Your task to perform on an android device: Open maps Image 0: 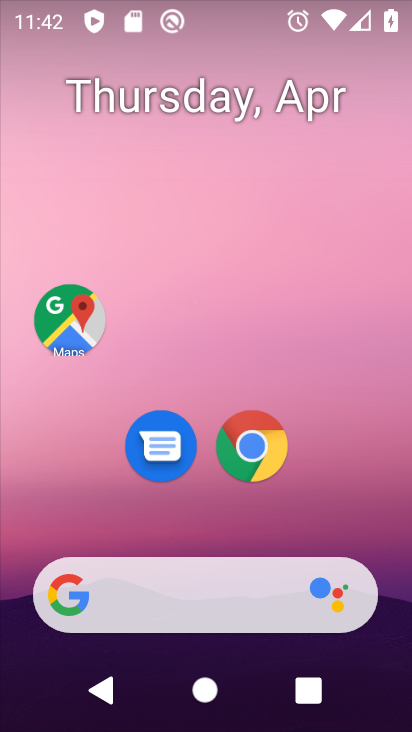
Step 0: click (69, 346)
Your task to perform on an android device: Open maps Image 1: 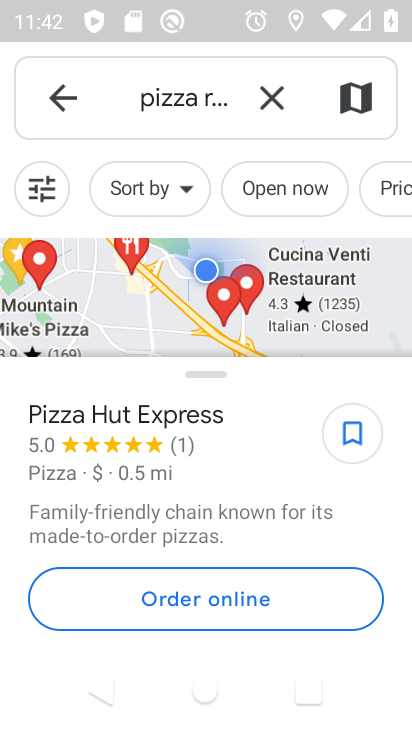
Step 1: task complete